Your task to perform on an android device: Go to accessibility settings Image 0: 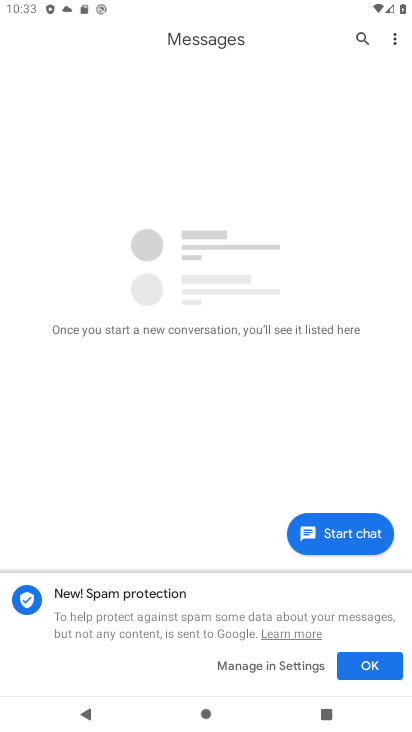
Step 0: press home button
Your task to perform on an android device: Go to accessibility settings Image 1: 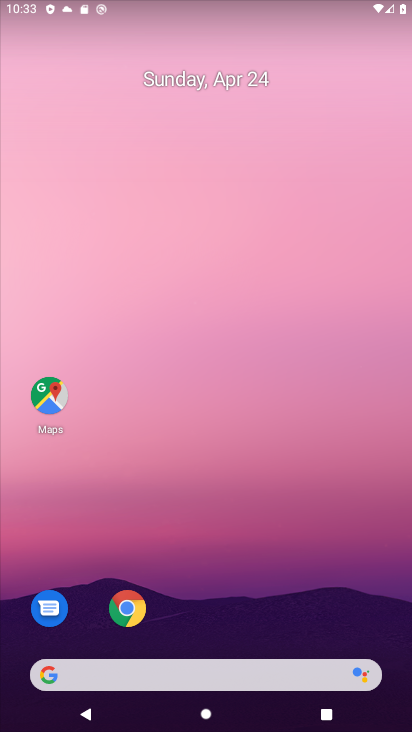
Step 1: drag from (244, 569) to (130, 65)
Your task to perform on an android device: Go to accessibility settings Image 2: 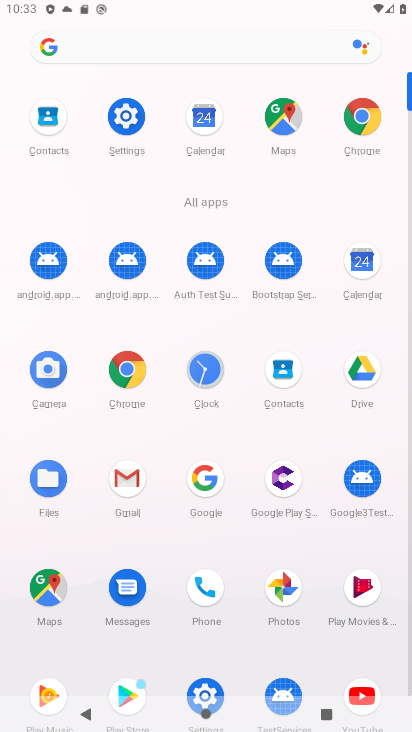
Step 2: click (115, 121)
Your task to perform on an android device: Go to accessibility settings Image 3: 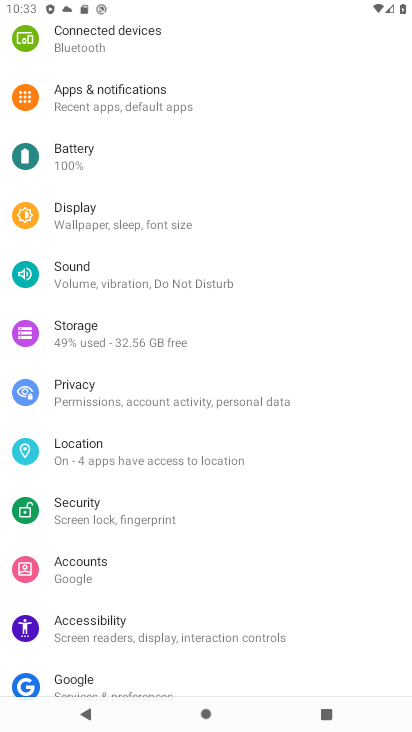
Step 3: click (146, 621)
Your task to perform on an android device: Go to accessibility settings Image 4: 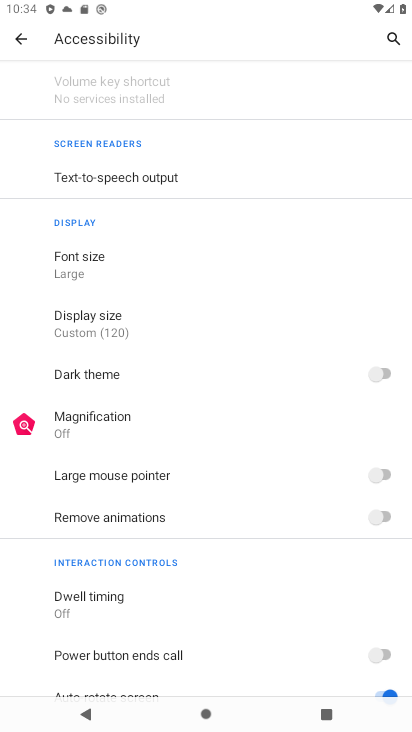
Step 4: task complete